Your task to perform on an android device: How much does a 2 bedroom apartment rent for in Los Angeles? Image 0: 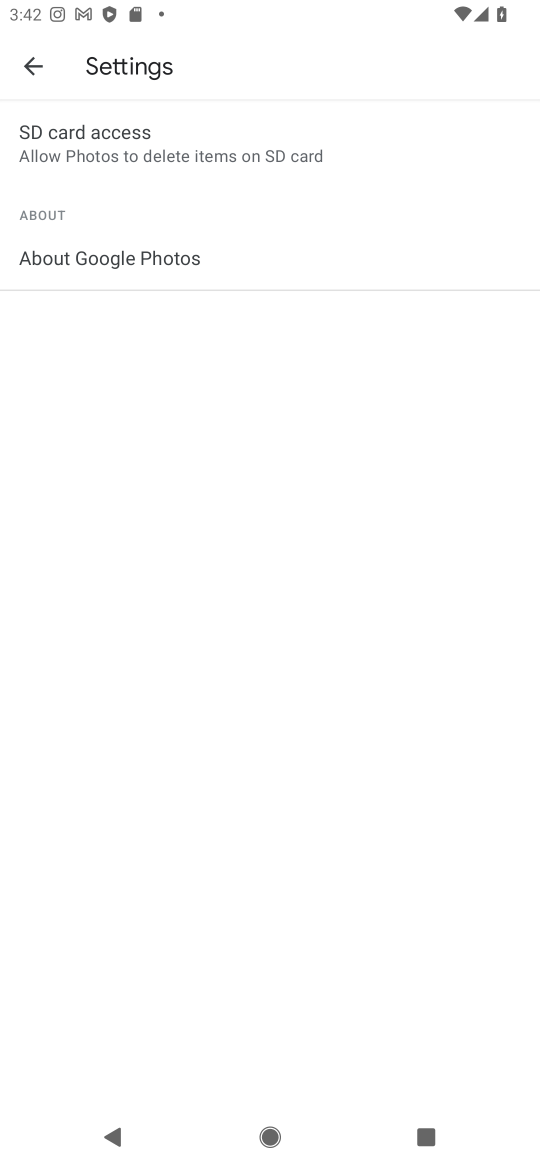
Step 0: press home button
Your task to perform on an android device: How much does a 2 bedroom apartment rent for in Los Angeles? Image 1: 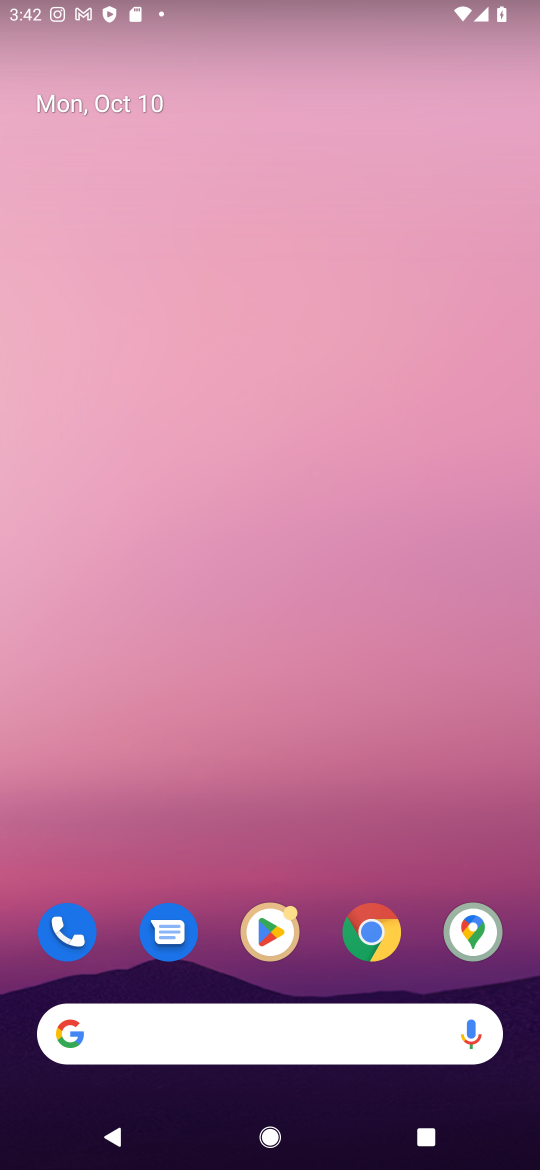
Step 1: click (284, 1030)
Your task to perform on an android device: How much does a 2 bedroom apartment rent for in Los Angeles? Image 2: 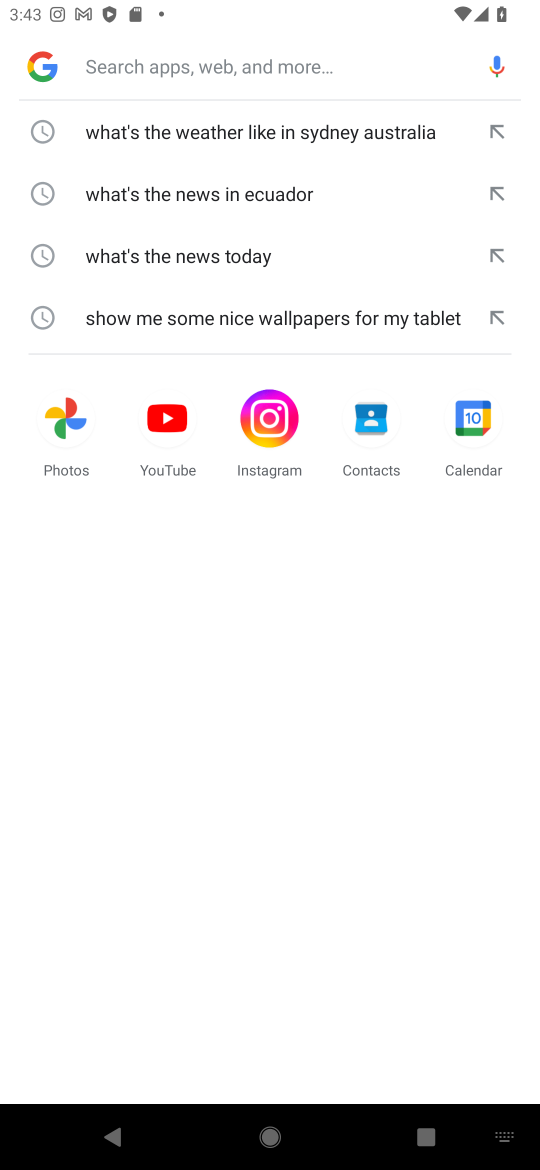
Step 2: type " 2 bedroom apartment rent for in Los Angeles"
Your task to perform on an android device: How much does a 2 bedroom apartment rent for in Los Angeles? Image 3: 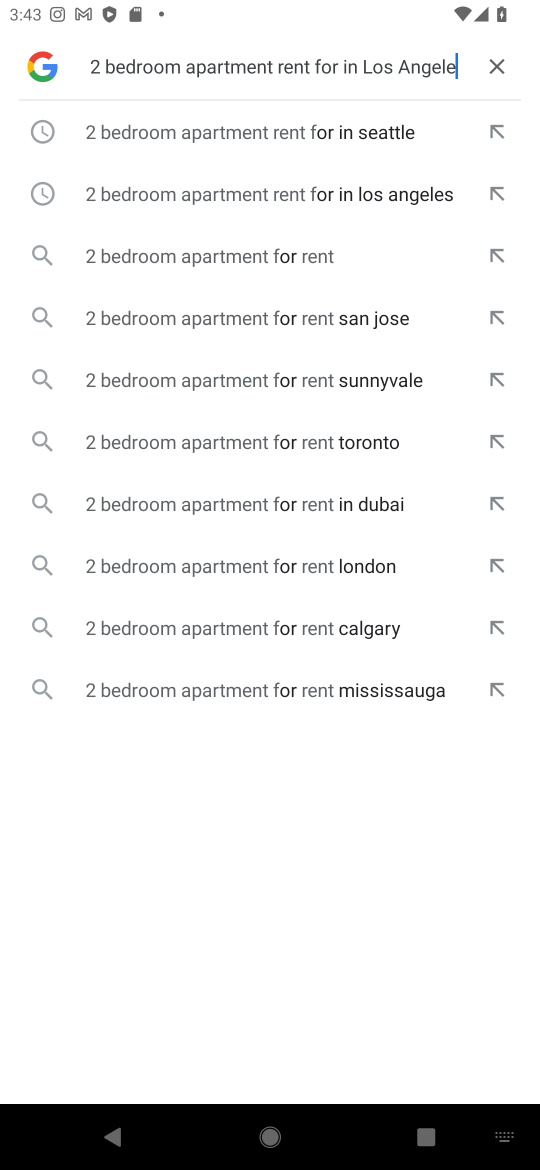
Step 3: press enter
Your task to perform on an android device: How much does a 2 bedroom apartment rent for in Los Angeles? Image 4: 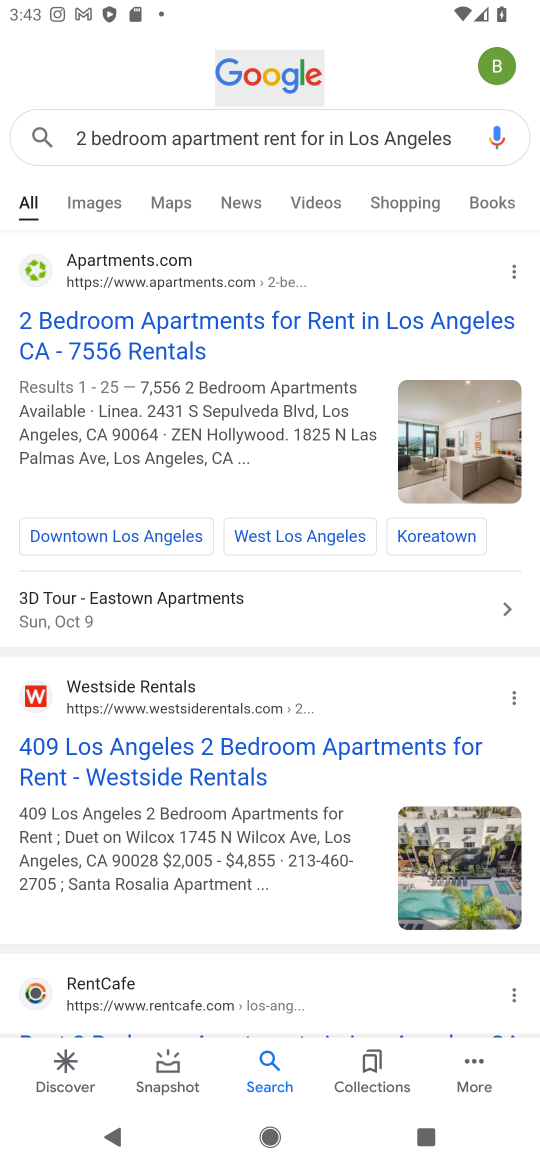
Step 4: click (191, 328)
Your task to perform on an android device: How much does a 2 bedroom apartment rent for in Los Angeles? Image 5: 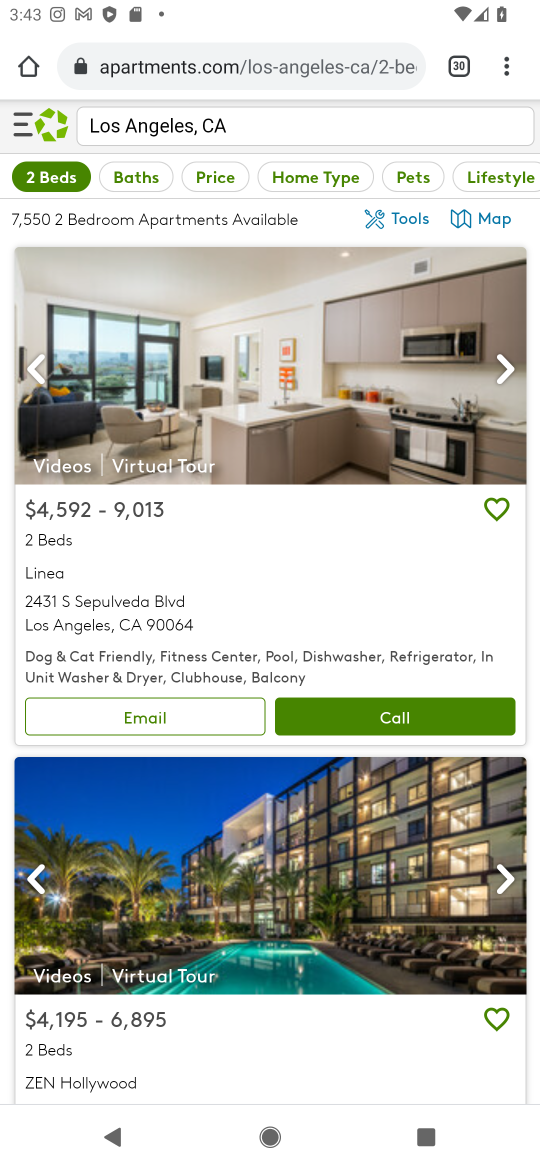
Step 5: task complete